Your task to perform on an android device: Empty the shopping cart on newegg. Add apple airpods to the cart on newegg Image 0: 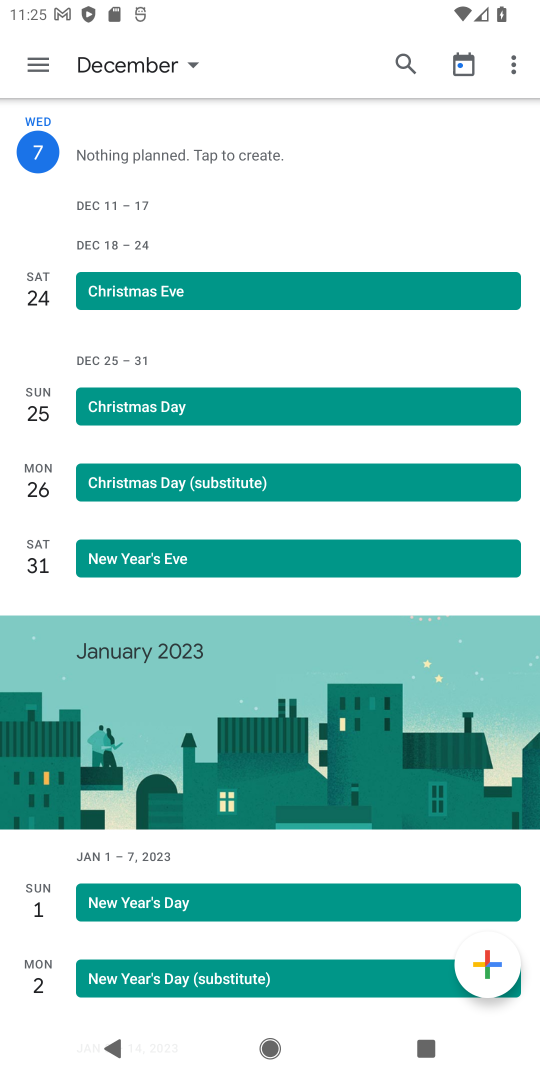
Step 0: press home button
Your task to perform on an android device: Empty the shopping cart on newegg. Add apple airpods to the cart on newegg Image 1: 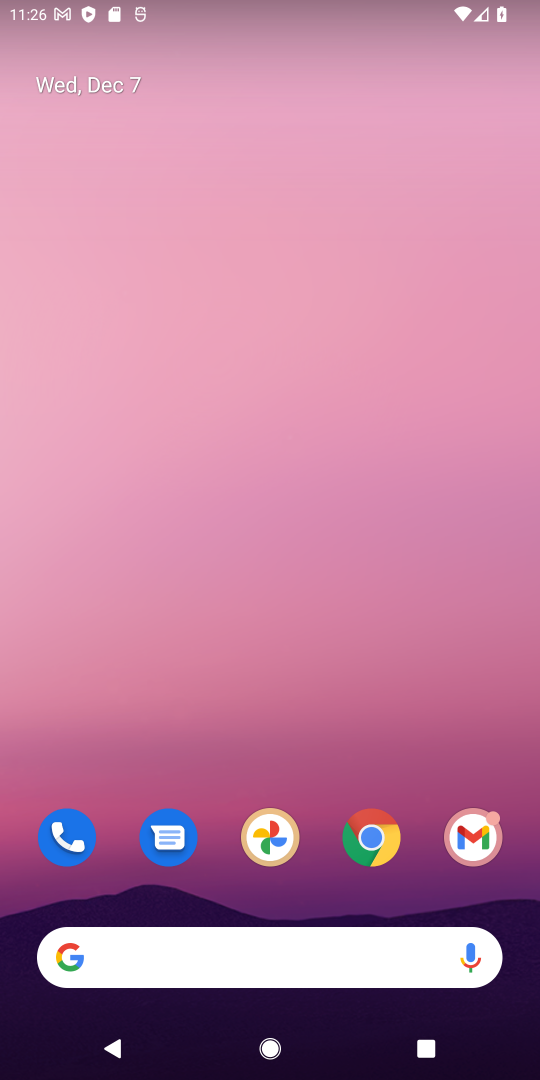
Step 1: click (375, 844)
Your task to perform on an android device: Empty the shopping cart on newegg. Add apple airpods to the cart on newegg Image 2: 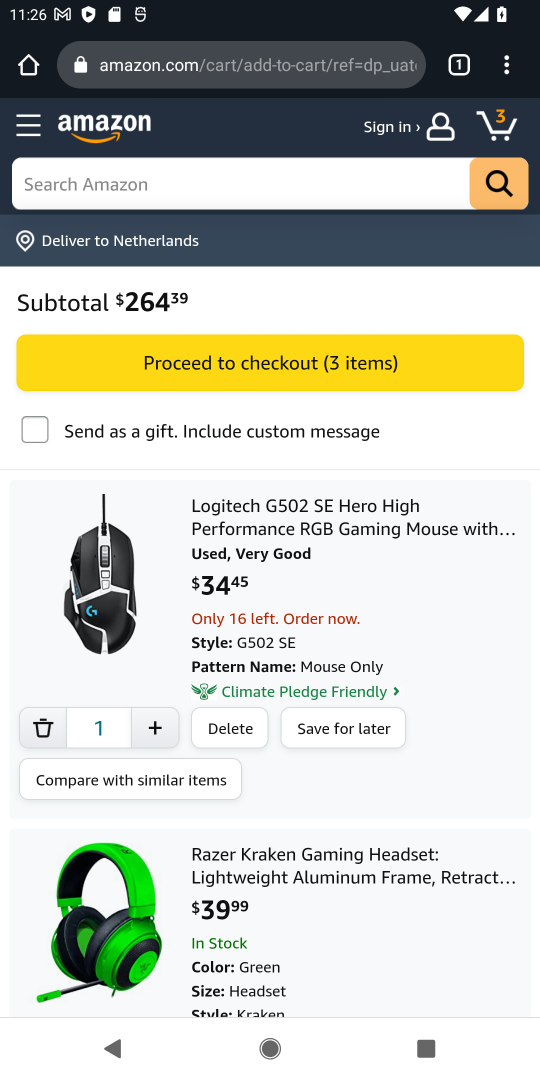
Step 2: click (269, 64)
Your task to perform on an android device: Empty the shopping cart on newegg. Add apple airpods to the cart on newegg Image 3: 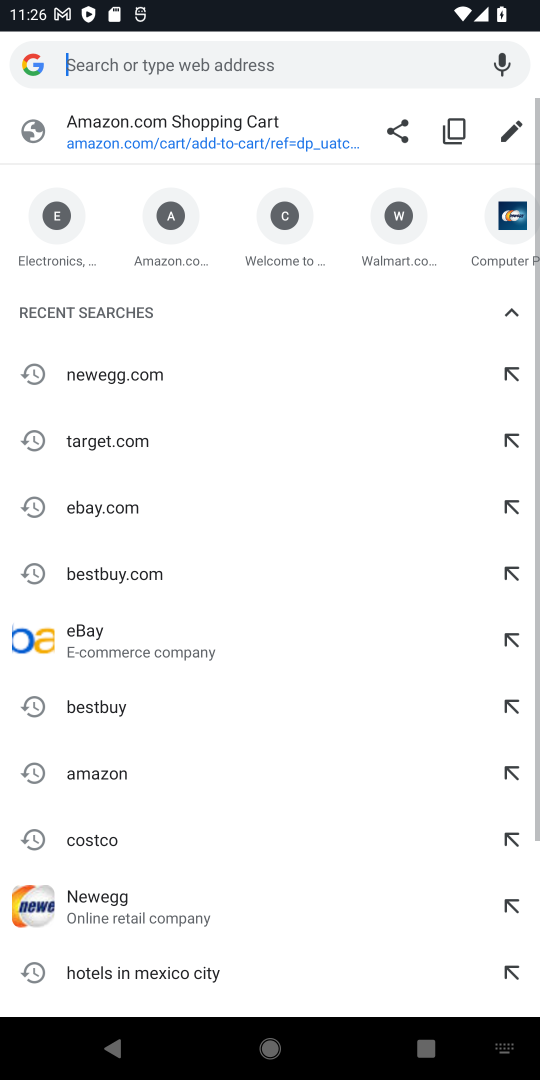
Step 3: click (116, 372)
Your task to perform on an android device: Empty the shopping cart on newegg. Add apple airpods to the cart on newegg Image 4: 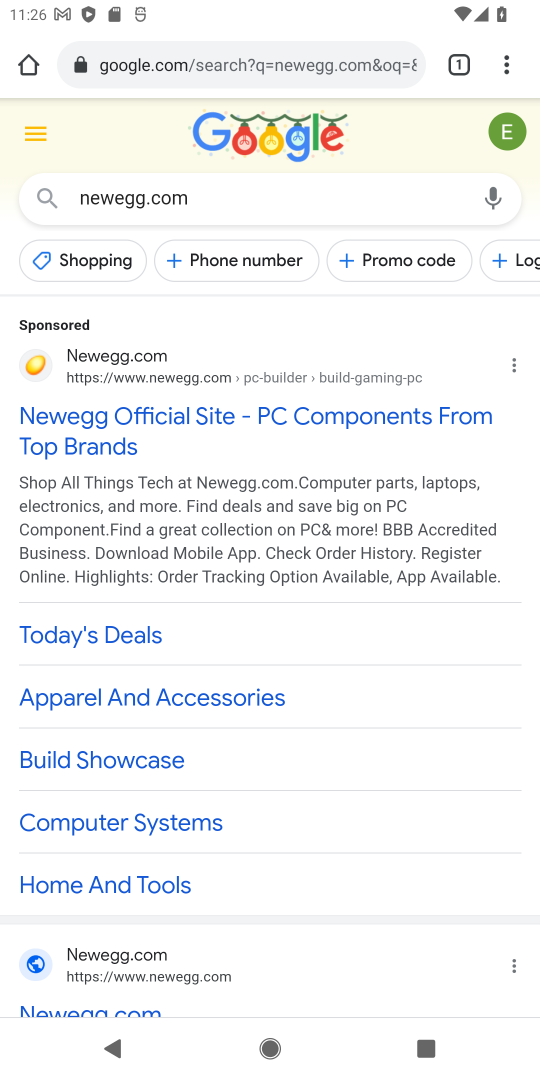
Step 4: click (143, 371)
Your task to perform on an android device: Empty the shopping cart on newegg. Add apple airpods to the cart on newegg Image 5: 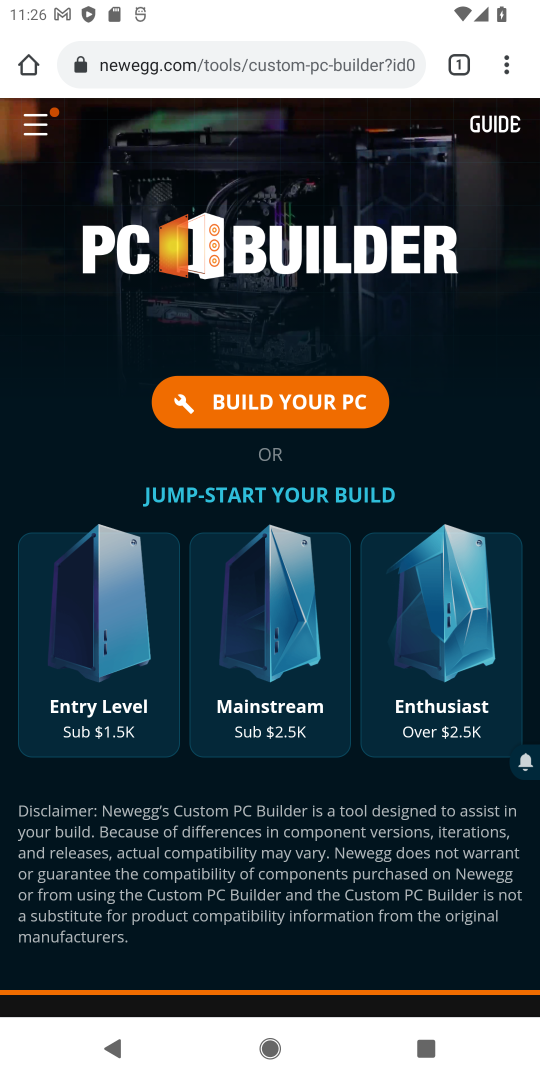
Step 5: press back button
Your task to perform on an android device: Empty the shopping cart on newegg. Add apple airpods to the cart on newegg Image 6: 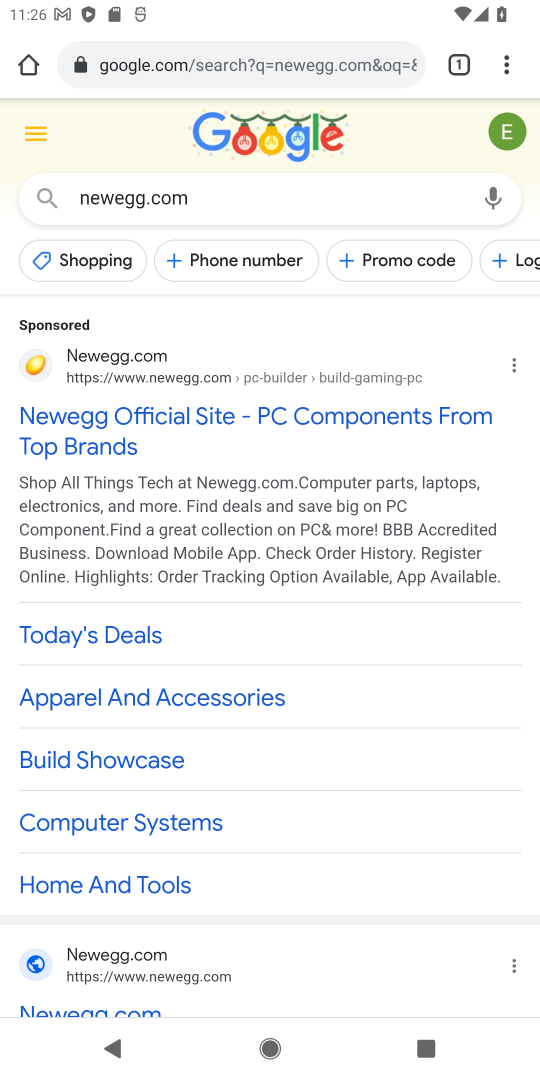
Step 6: click (157, 972)
Your task to perform on an android device: Empty the shopping cart on newegg. Add apple airpods to the cart on newegg Image 7: 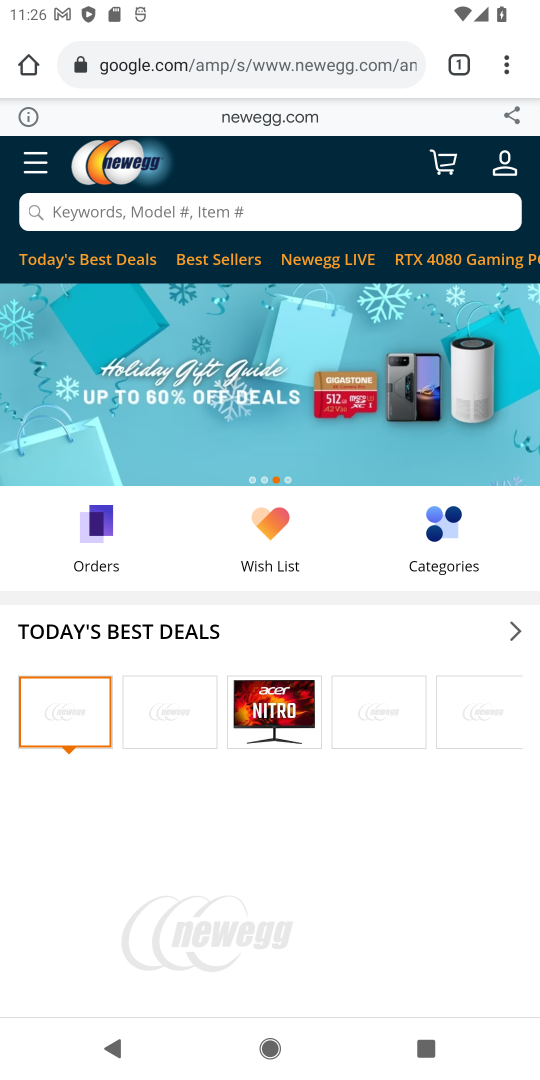
Step 7: click (339, 216)
Your task to perform on an android device: Empty the shopping cart on newegg. Add apple airpods to the cart on newegg Image 8: 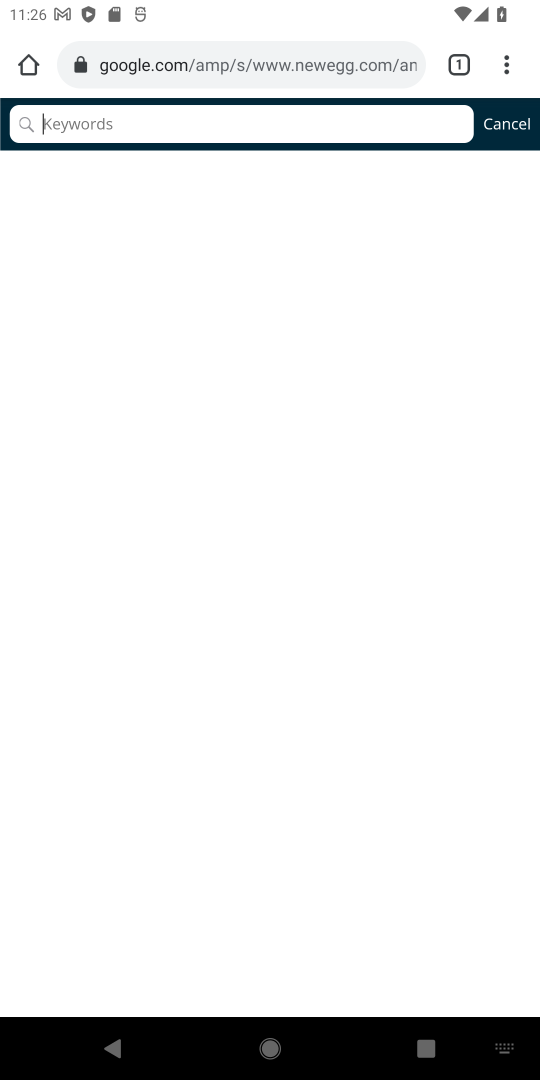
Step 8: type "apple airpods"
Your task to perform on an android device: Empty the shopping cart on newegg. Add apple airpods to the cart on newegg Image 9: 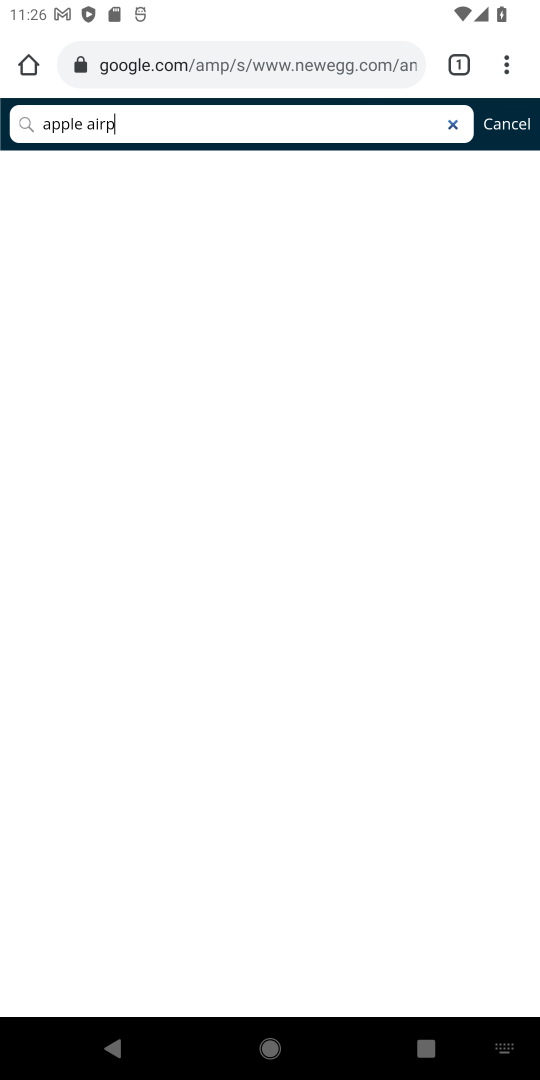
Step 9: press enter
Your task to perform on an android device: Empty the shopping cart on newegg. Add apple airpods to the cart on newegg Image 10: 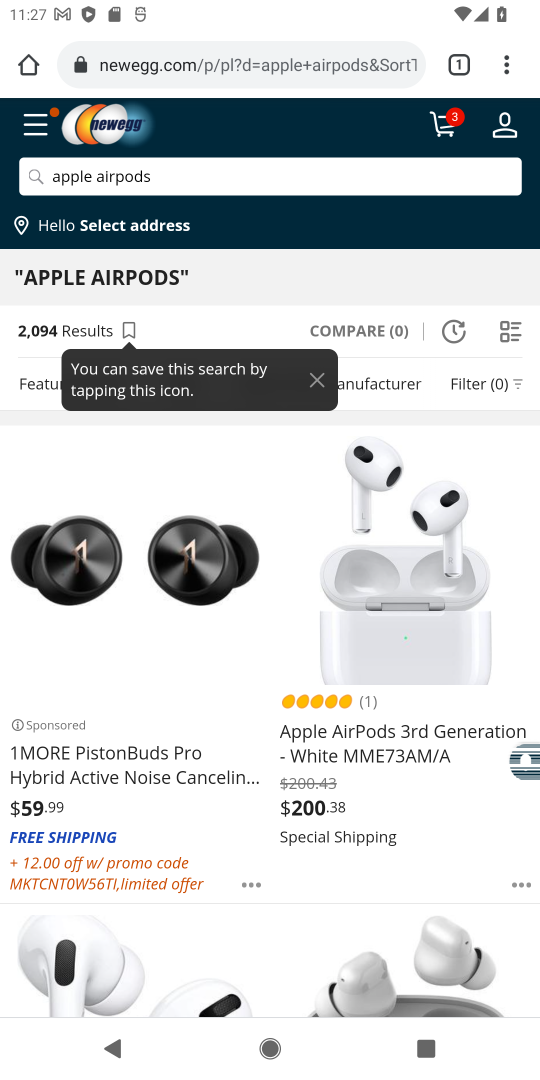
Step 10: click (453, 129)
Your task to perform on an android device: Empty the shopping cart on newegg. Add apple airpods to the cart on newegg Image 11: 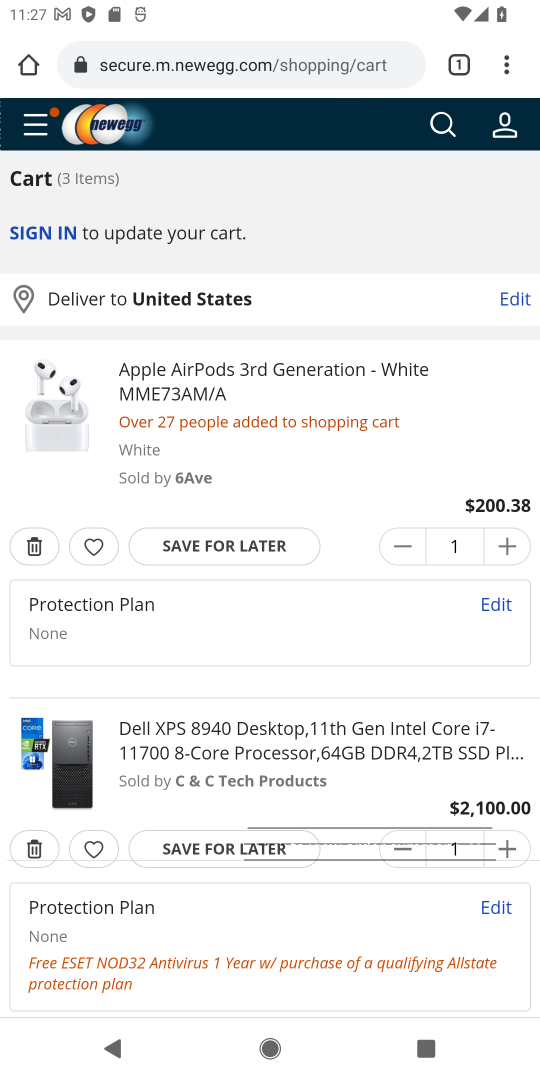
Step 11: click (282, 926)
Your task to perform on an android device: Empty the shopping cart on newegg. Add apple airpods to the cart on newegg Image 12: 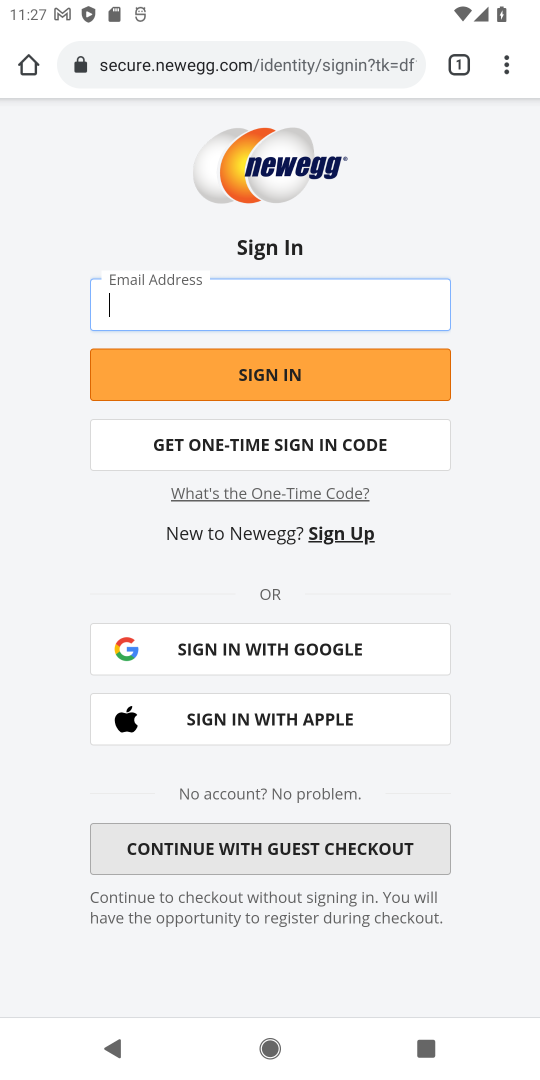
Step 12: task complete